Your task to perform on an android device: Go to internet settings Image 0: 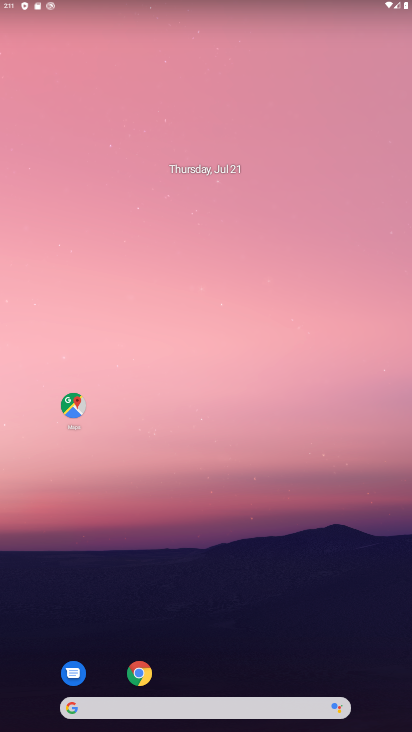
Step 0: drag from (373, 669) to (323, 195)
Your task to perform on an android device: Go to internet settings Image 1: 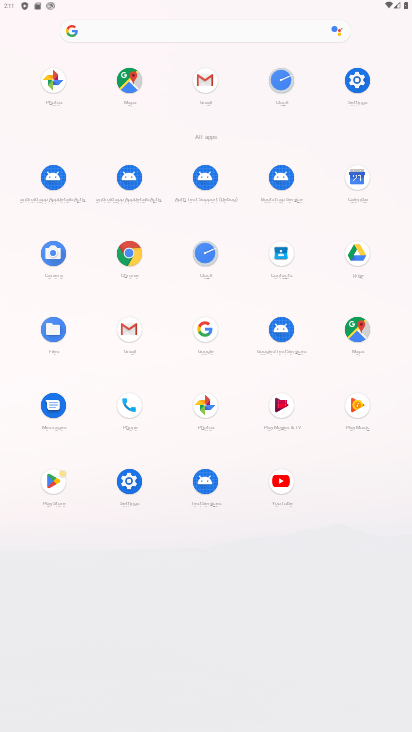
Step 1: click (125, 478)
Your task to perform on an android device: Go to internet settings Image 2: 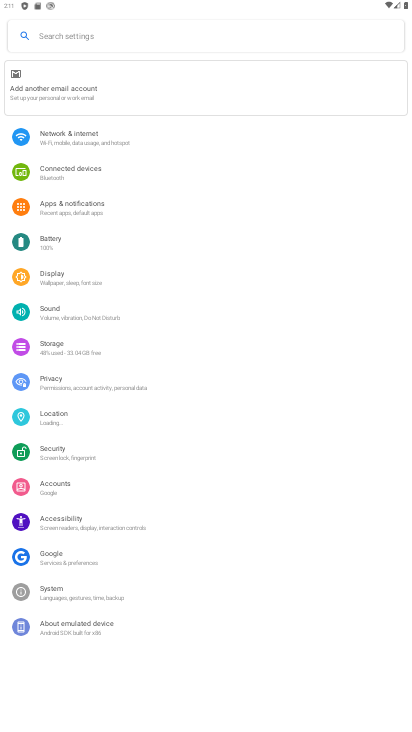
Step 2: click (63, 133)
Your task to perform on an android device: Go to internet settings Image 3: 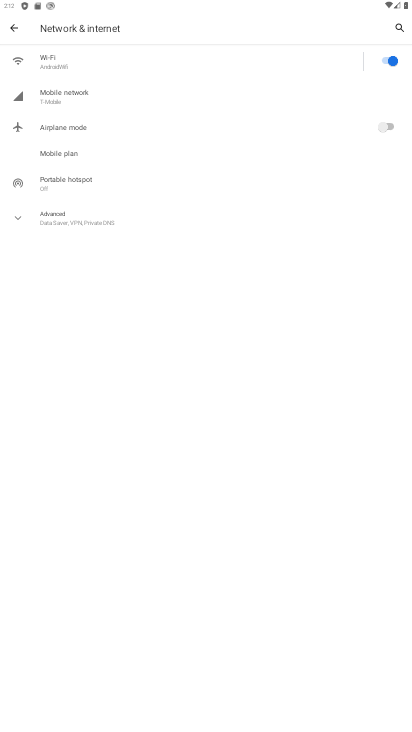
Step 3: click (51, 97)
Your task to perform on an android device: Go to internet settings Image 4: 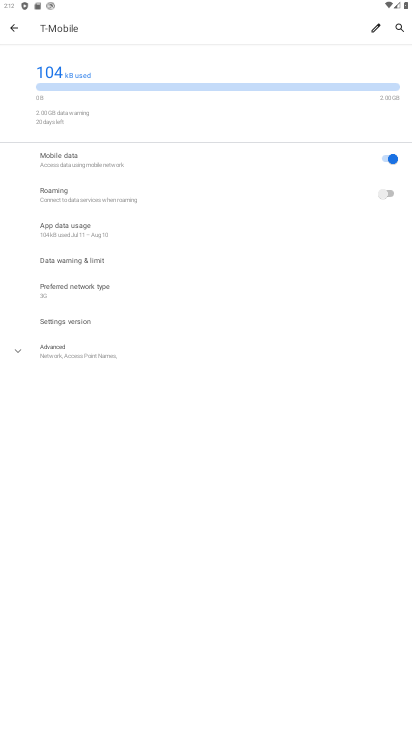
Step 4: task complete